Your task to perform on an android device: When is my next meeting? Image 0: 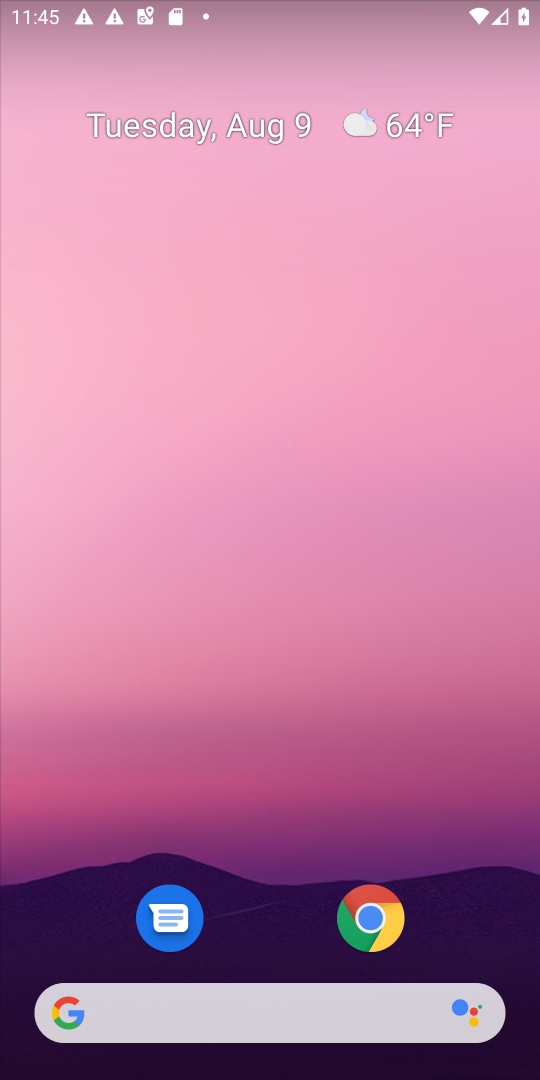
Step 0: drag from (258, 898) to (324, 237)
Your task to perform on an android device: When is my next meeting? Image 1: 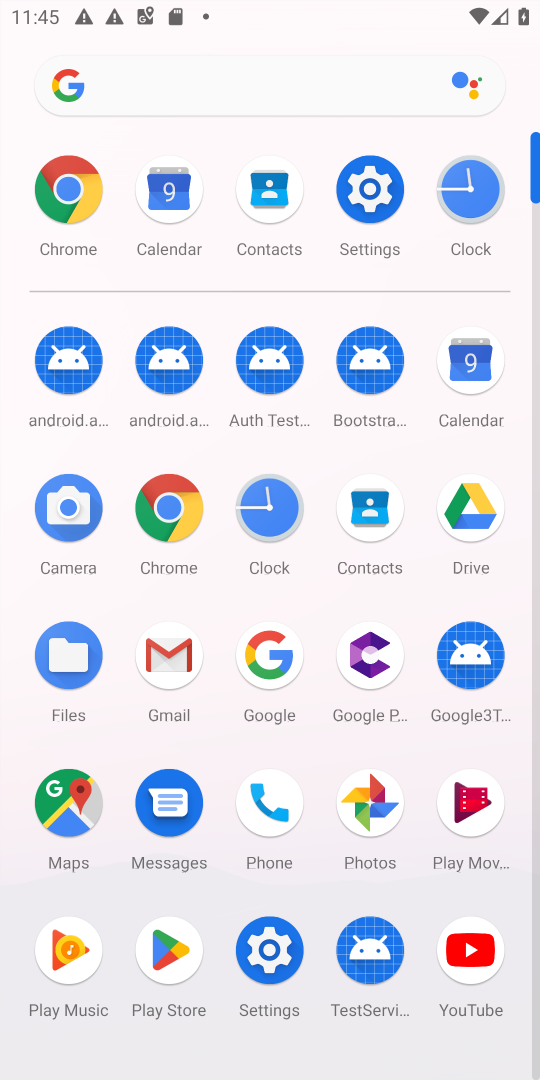
Step 1: click (464, 351)
Your task to perform on an android device: When is my next meeting? Image 2: 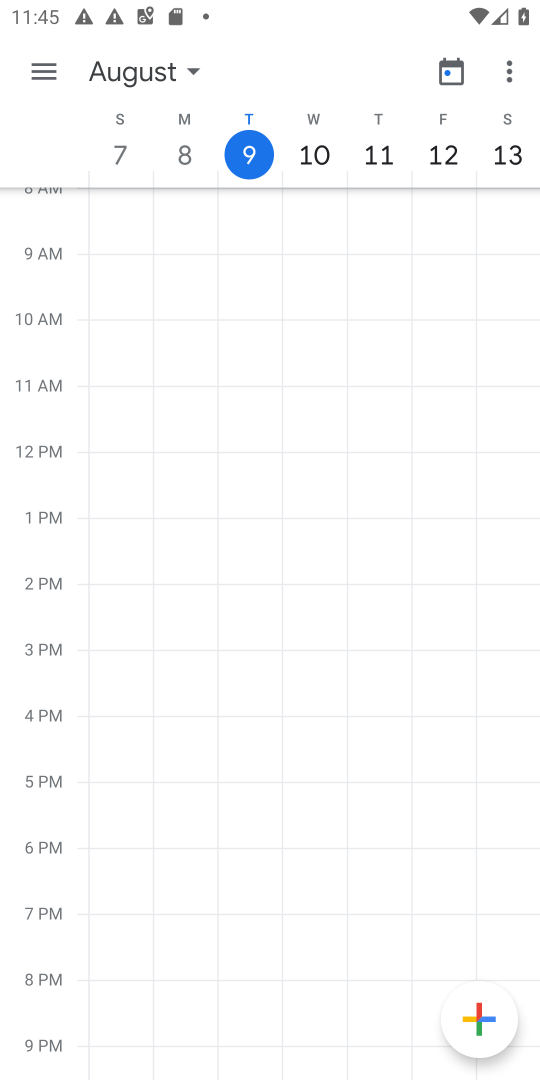
Step 2: task complete